Your task to perform on an android device: toggle data saver in the chrome app Image 0: 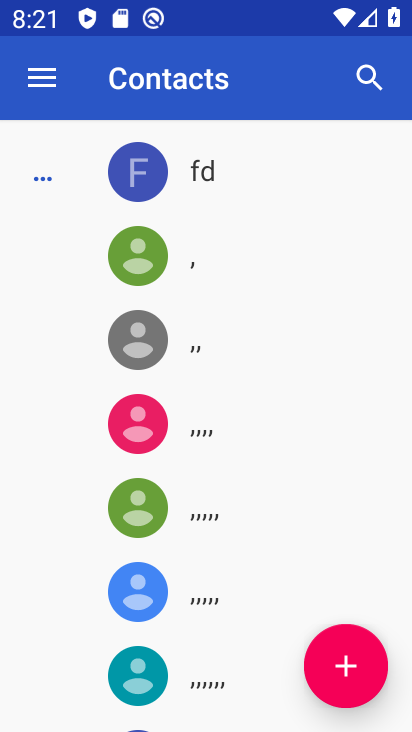
Step 0: press home button
Your task to perform on an android device: toggle data saver in the chrome app Image 1: 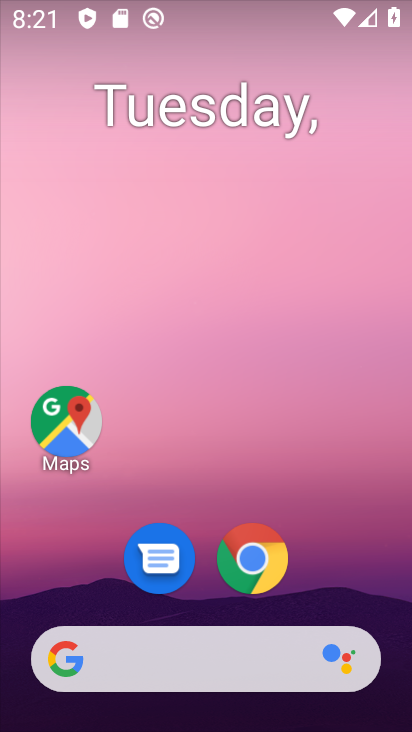
Step 1: click (255, 575)
Your task to perform on an android device: toggle data saver in the chrome app Image 2: 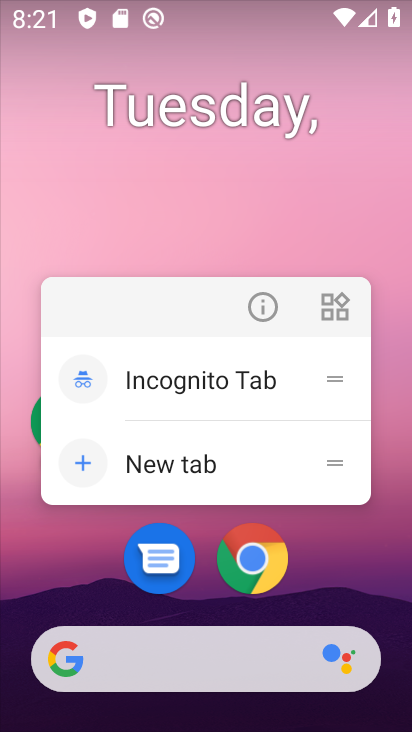
Step 2: click (260, 541)
Your task to perform on an android device: toggle data saver in the chrome app Image 3: 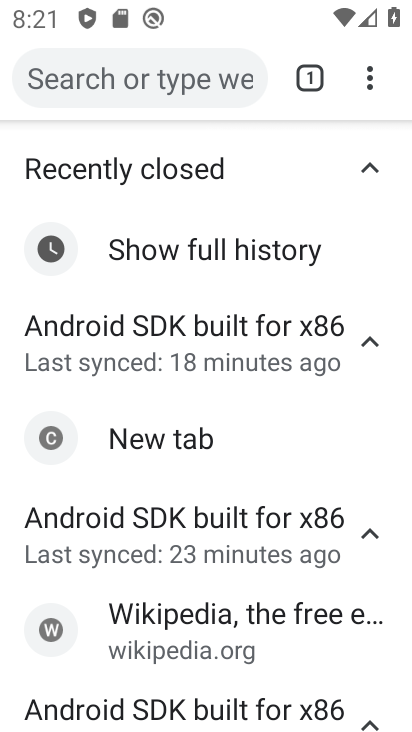
Step 3: drag from (365, 82) to (103, 628)
Your task to perform on an android device: toggle data saver in the chrome app Image 4: 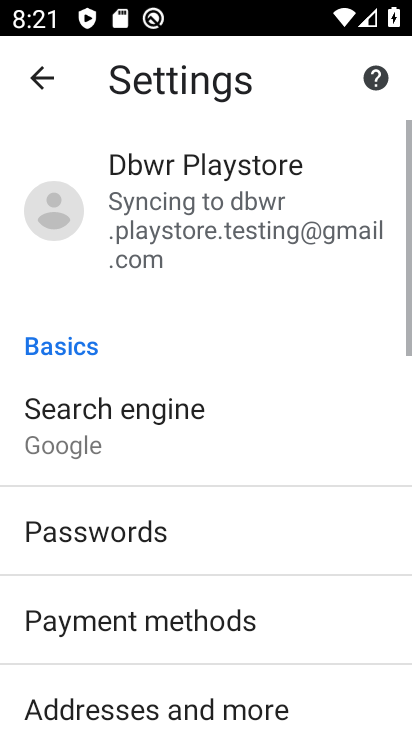
Step 4: drag from (159, 585) to (187, 213)
Your task to perform on an android device: toggle data saver in the chrome app Image 5: 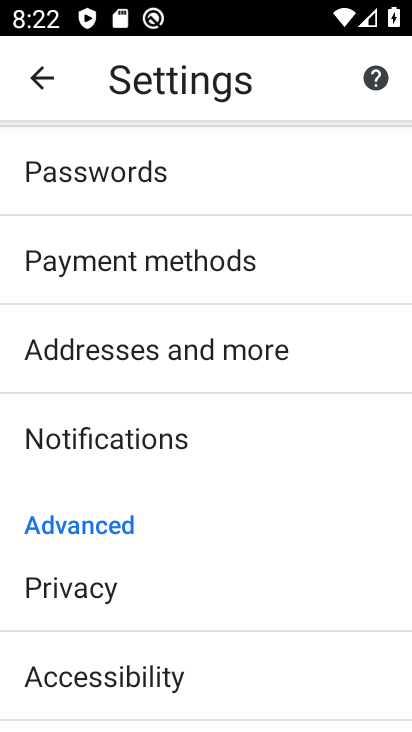
Step 5: drag from (194, 643) to (207, 382)
Your task to perform on an android device: toggle data saver in the chrome app Image 6: 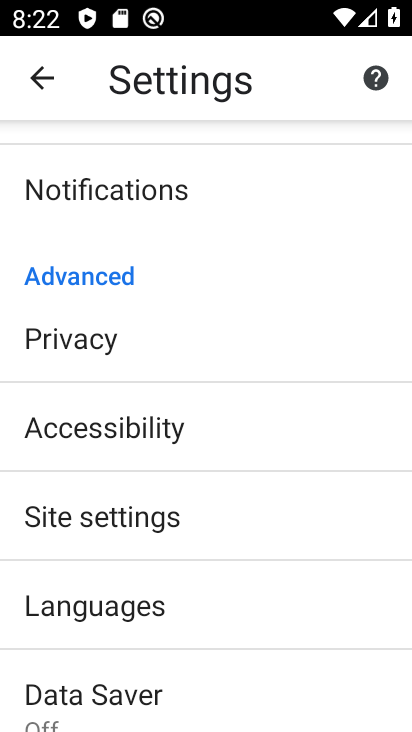
Step 6: drag from (202, 637) to (213, 418)
Your task to perform on an android device: toggle data saver in the chrome app Image 7: 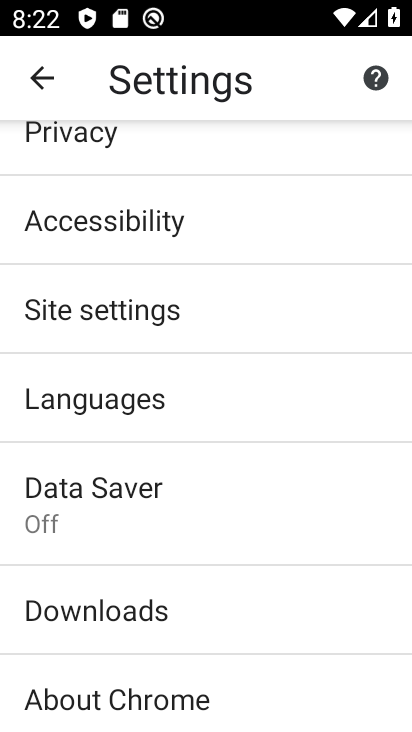
Step 7: click (78, 525)
Your task to perform on an android device: toggle data saver in the chrome app Image 8: 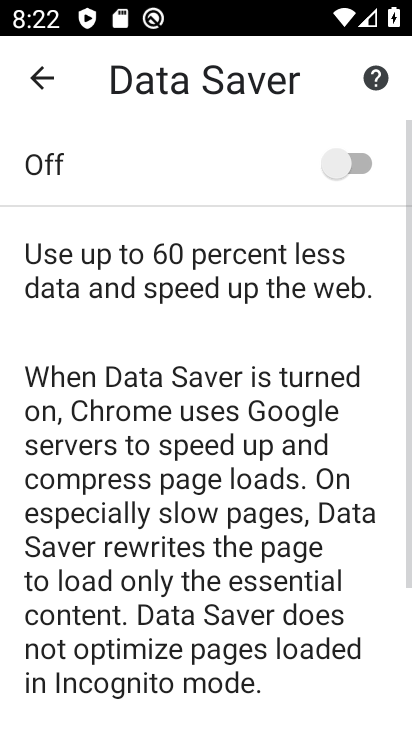
Step 8: click (359, 151)
Your task to perform on an android device: toggle data saver in the chrome app Image 9: 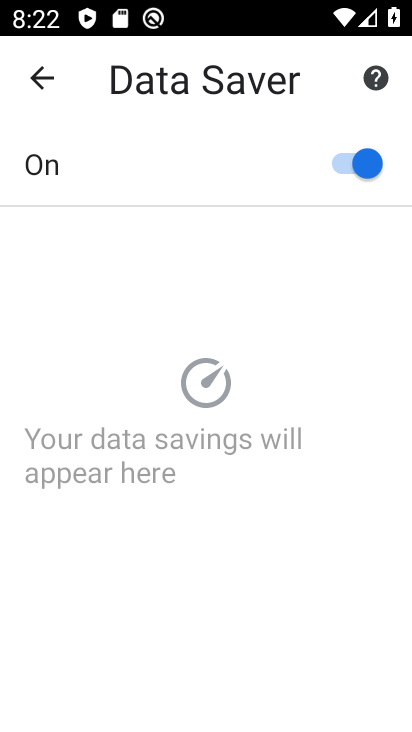
Step 9: task complete